Your task to perform on an android device: move an email to a new category in the gmail app Image 0: 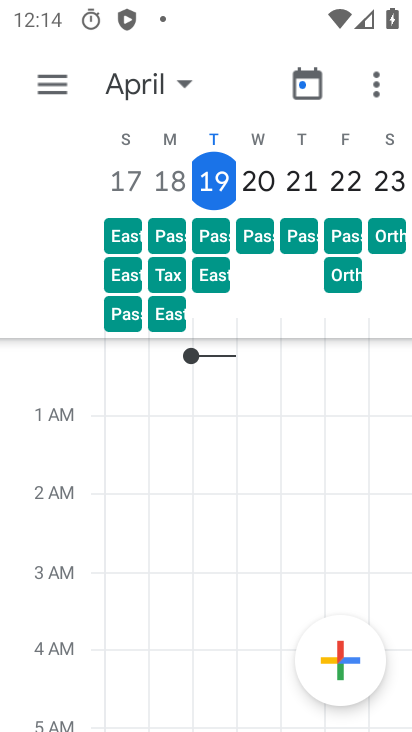
Step 0: press home button
Your task to perform on an android device: move an email to a new category in the gmail app Image 1: 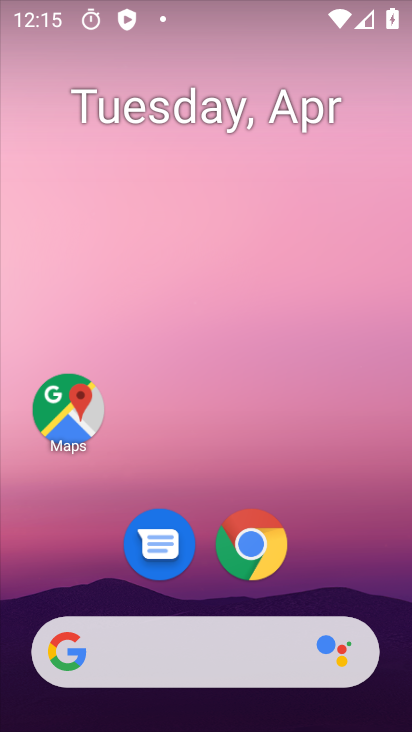
Step 1: drag from (380, 587) to (367, 82)
Your task to perform on an android device: move an email to a new category in the gmail app Image 2: 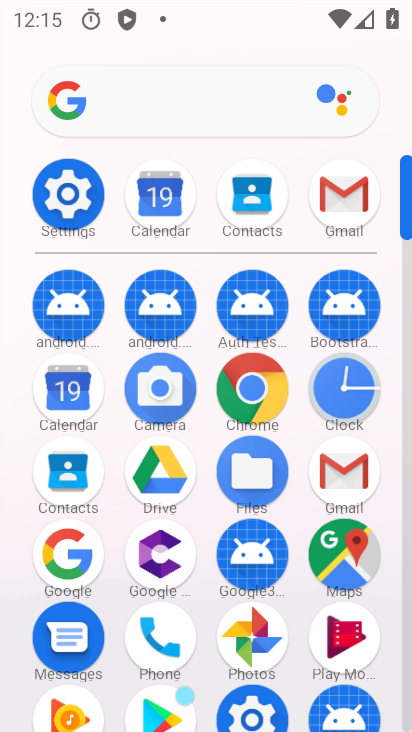
Step 2: click (335, 201)
Your task to perform on an android device: move an email to a new category in the gmail app Image 3: 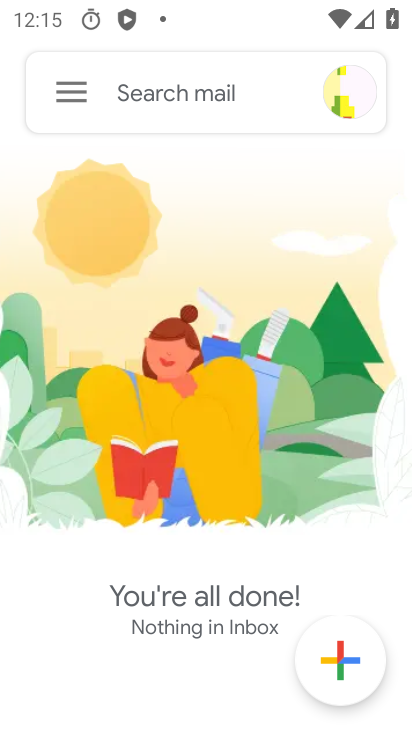
Step 3: click (81, 96)
Your task to perform on an android device: move an email to a new category in the gmail app Image 4: 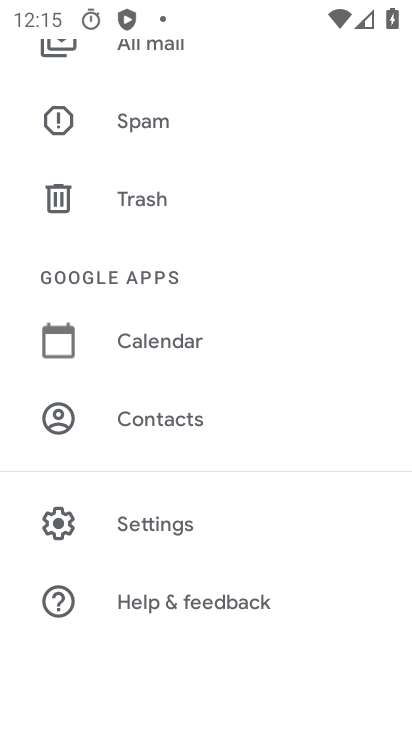
Step 4: drag from (286, 292) to (279, 431)
Your task to perform on an android device: move an email to a new category in the gmail app Image 5: 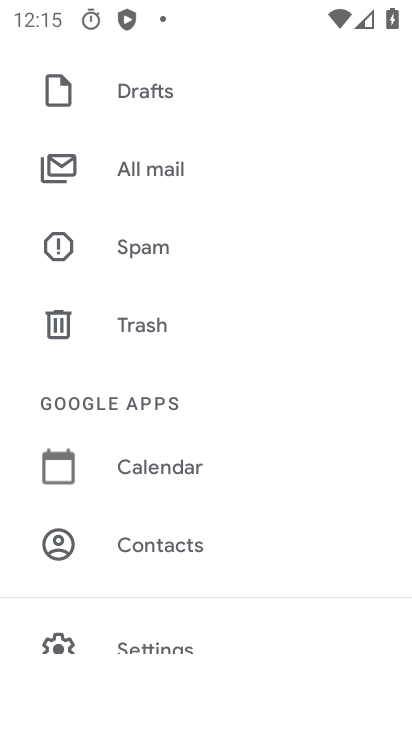
Step 5: drag from (222, 254) to (244, 493)
Your task to perform on an android device: move an email to a new category in the gmail app Image 6: 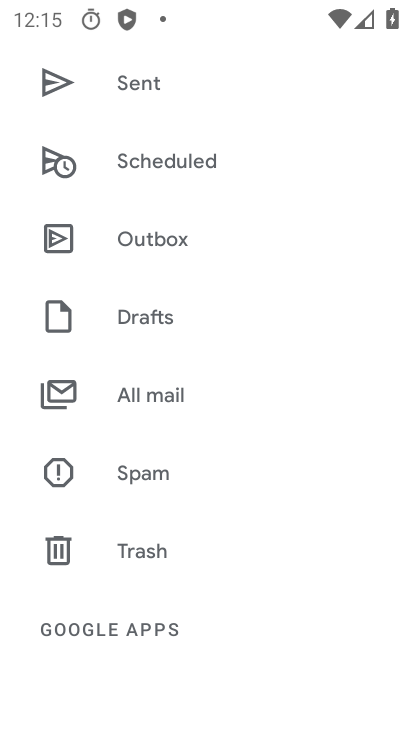
Step 6: drag from (235, 148) to (261, 554)
Your task to perform on an android device: move an email to a new category in the gmail app Image 7: 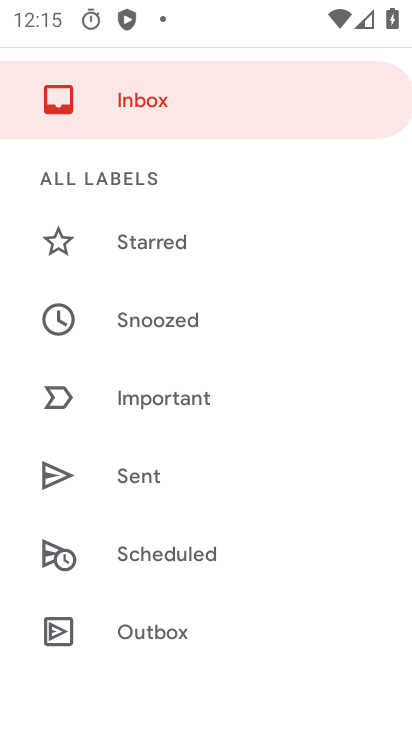
Step 7: drag from (275, 327) to (275, 492)
Your task to perform on an android device: move an email to a new category in the gmail app Image 8: 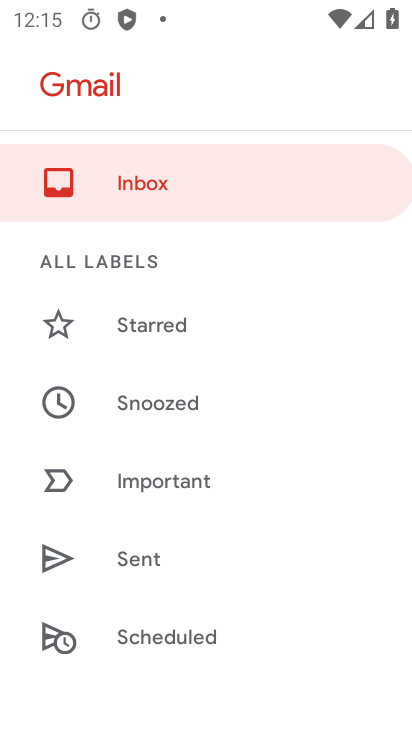
Step 8: click (159, 489)
Your task to perform on an android device: move an email to a new category in the gmail app Image 9: 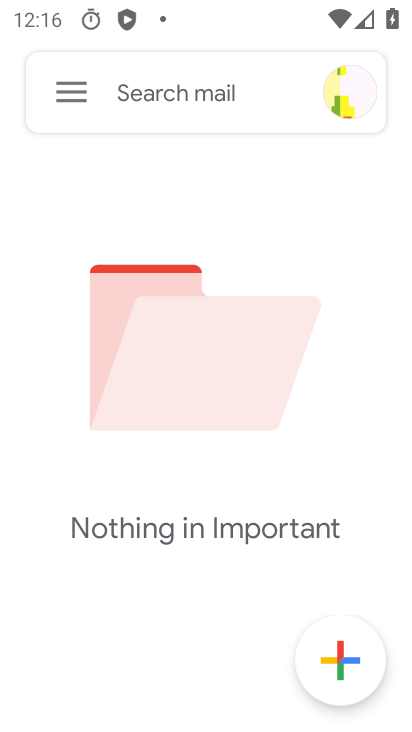
Step 9: task complete